Your task to perform on an android device: Do I have any events tomorrow? Image 0: 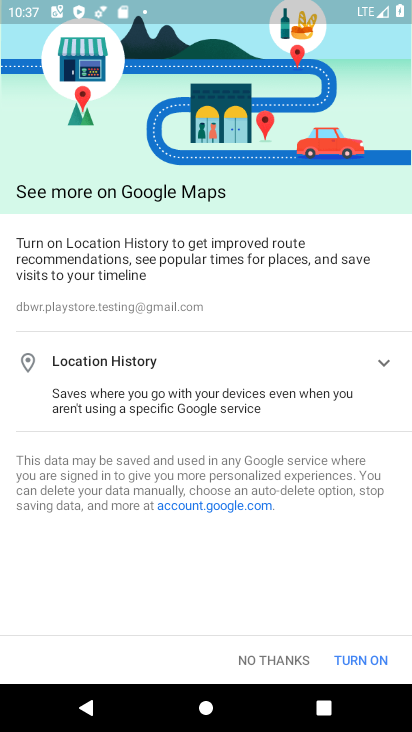
Step 0: press back button
Your task to perform on an android device: Do I have any events tomorrow? Image 1: 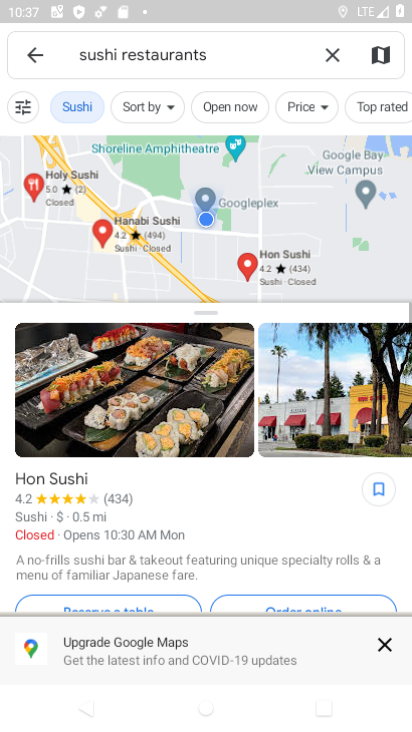
Step 1: press back button
Your task to perform on an android device: Do I have any events tomorrow? Image 2: 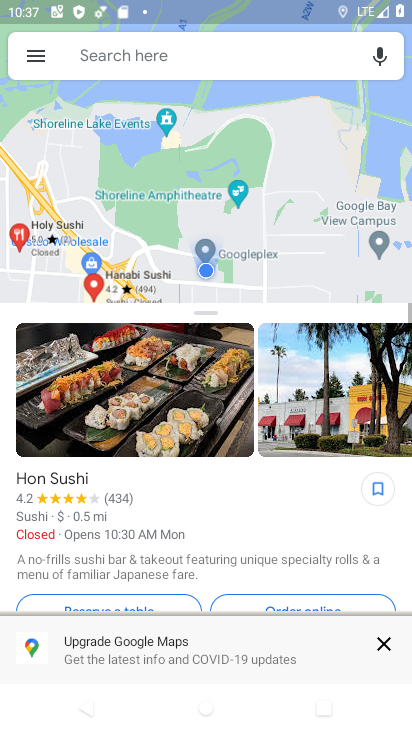
Step 2: press home button
Your task to perform on an android device: Do I have any events tomorrow? Image 3: 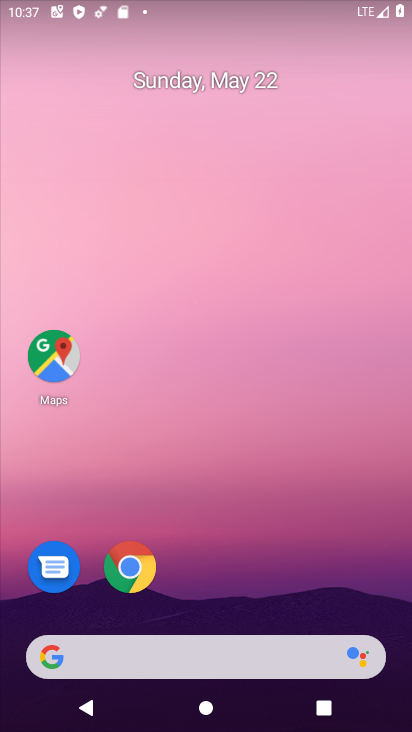
Step 3: drag from (263, 507) to (286, 38)
Your task to perform on an android device: Do I have any events tomorrow? Image 4: 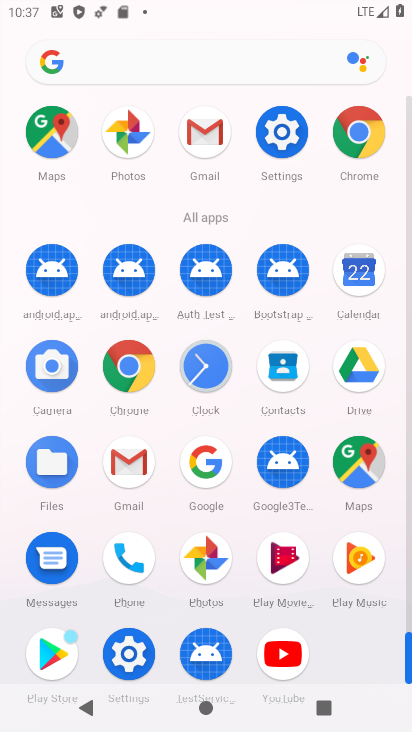
Step 4: click (122, 363)
Your task to perform on an android device: Do I have any events tomorrow? Image 5: 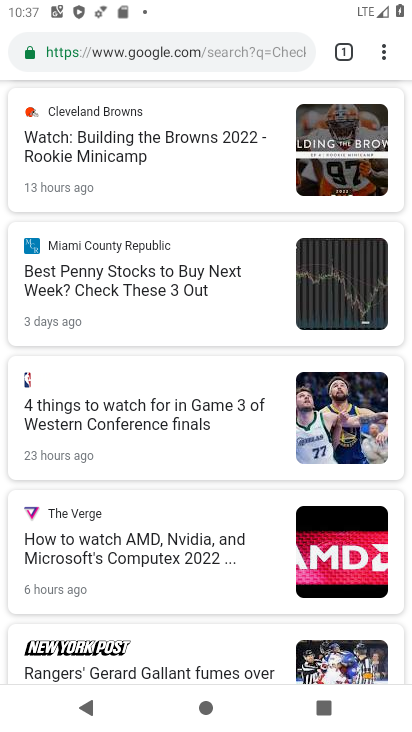
Step 5: click (173, 49)
Your task to perform on an android device: Do I have any events tomorrow? Image 6: 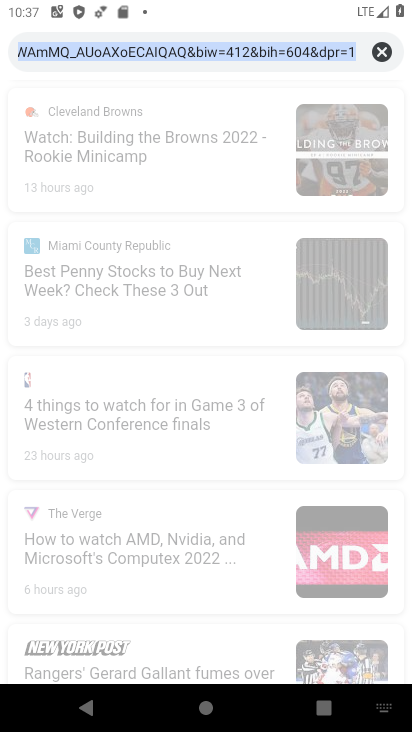
Step 6: click (378, 51)
Your task to perform on an android device: Do I have any events tomorrow? Image 7: 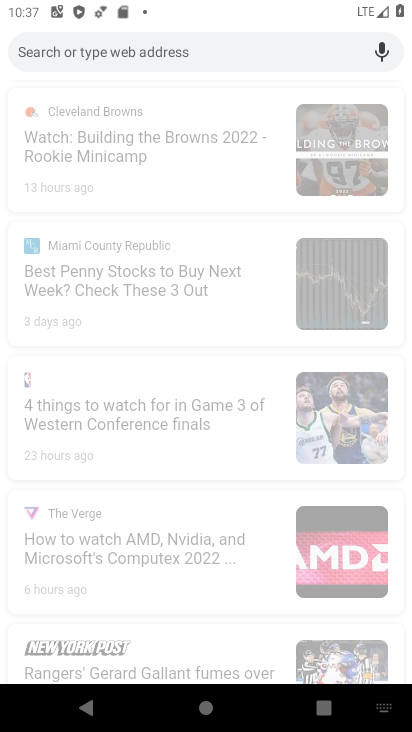
Step 7: type "Do I have any events tomorrow?"
Your task to perform on an android device: Do I have any events tomorrow? Image 8: 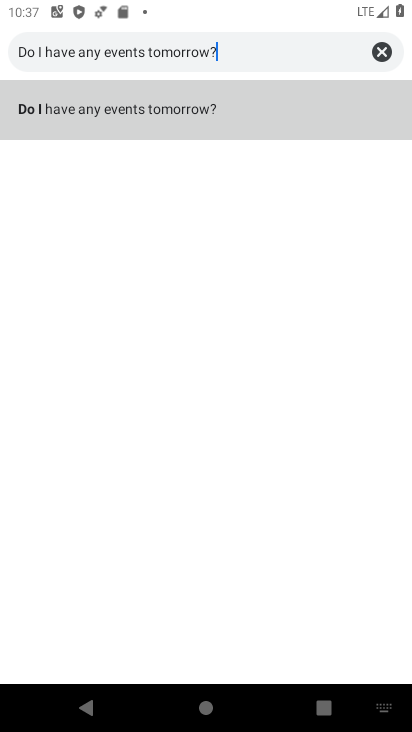
Step 8: type ""
Your task to perform on an android device: Do I have any events tomorrow? Image 9: 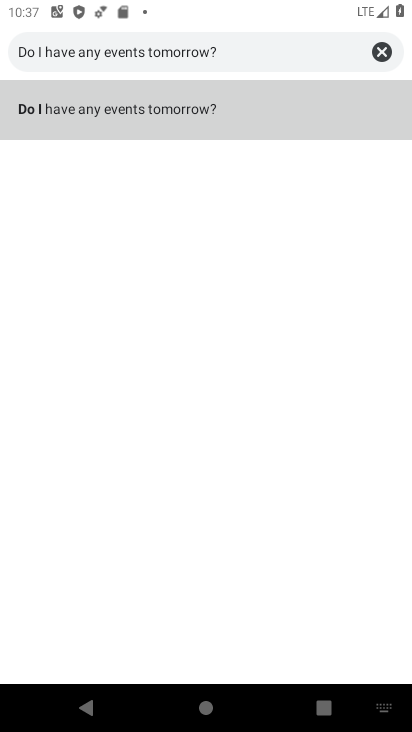
Step 9: click (149, 107)
Your task to perform on an android device: Do I have any events tomorrow? Image 10: 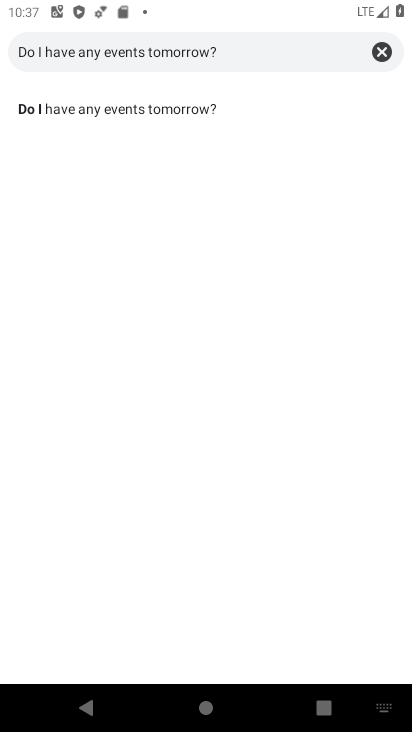
Step 10: click (149, 107)
Your task to perform on an android device: Do I have any events tomorrow? Image 11: 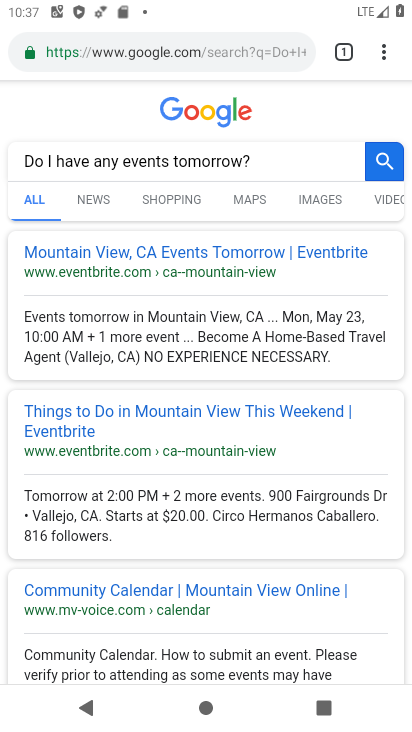
Step 11: click (94, 198)
Your task to perform on an android device: Do I have any events tomorrow? Image 12: 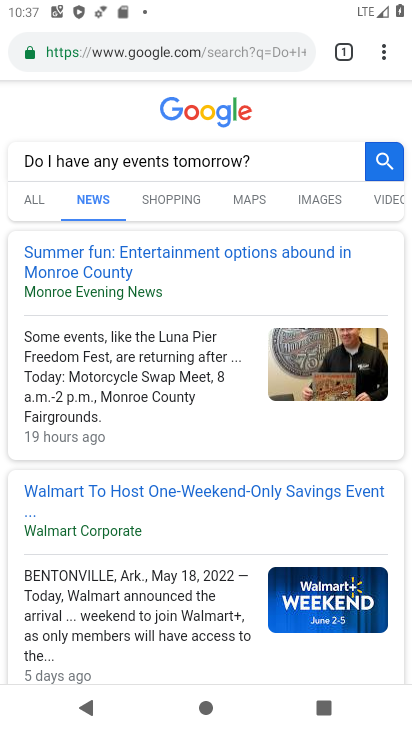
Step 12: task complete